Your task to perform on an android device: Search for pizza restaurants on Maps Image 0: 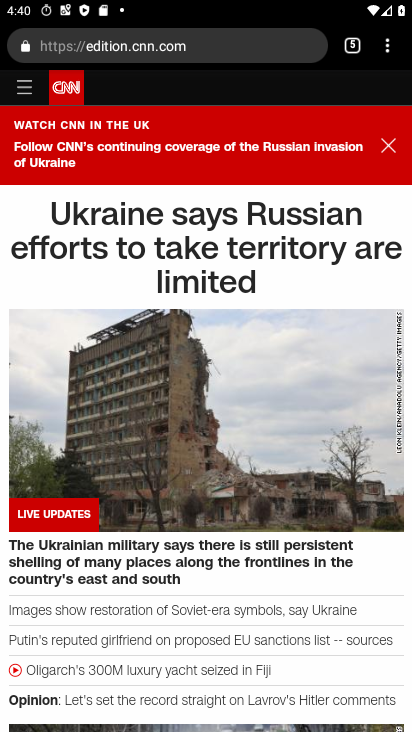
Step 0: press back button
Your task to perform on an android device: Search for pizza restaurants on Maps Image 1: 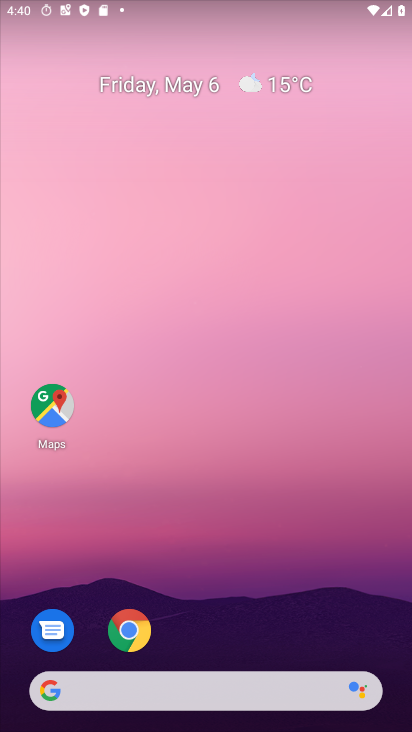
Step 1: click (51, 393)
Your task to perform on an android device: Search for pizza restaurants on Maps Image 2: 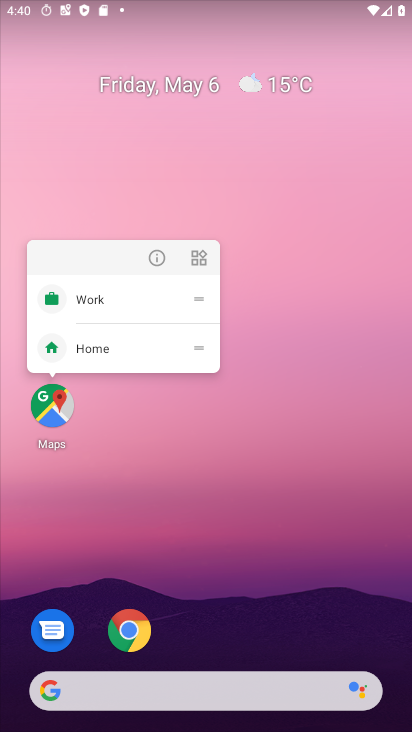
Step 2: click (53, 408)
Your task to perform on an android device: Search for pizza restaurants on Maps Image 3: 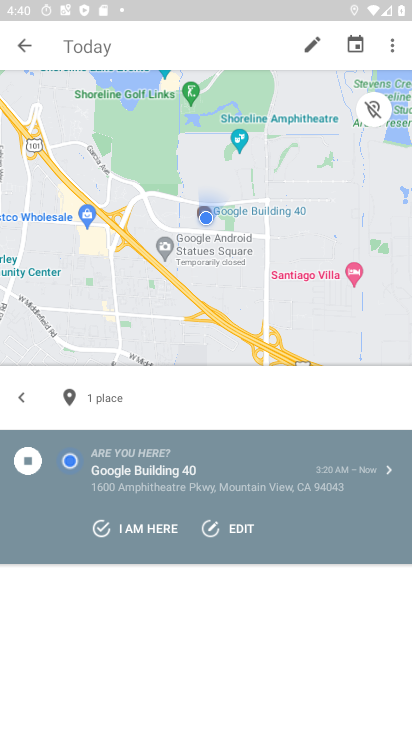
Step 3: click (31, 40)
Your task to perform on an android device: Search for pizza restaurants on Maps Image 4: 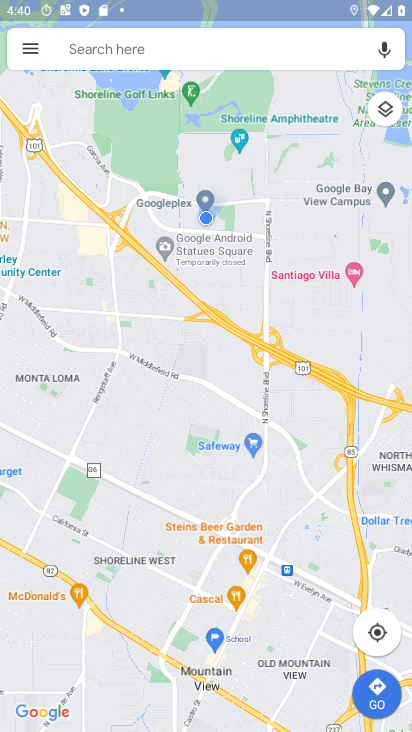
Step 4: click (105, 51)
Your task to perform on an android device: Search for pizza restaurants on Maps Image 5: 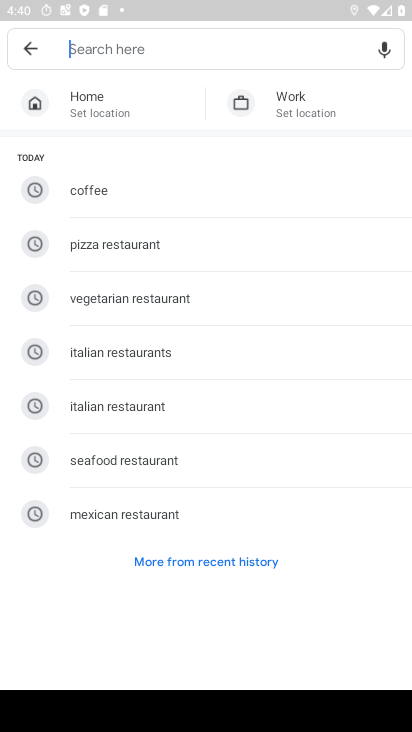
Step 5: click (130, 244)
Your task to perform on an android device: Search for pizza restaurants on Maps Image 6: 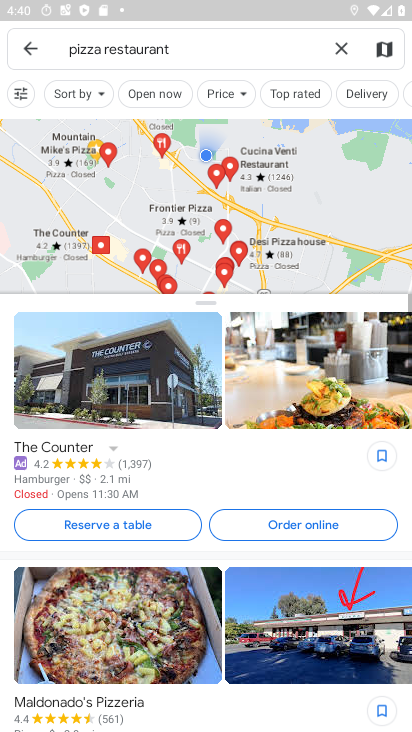
Step 6: task complete